Your task to perform on an android device: Show me recent news Image 0: 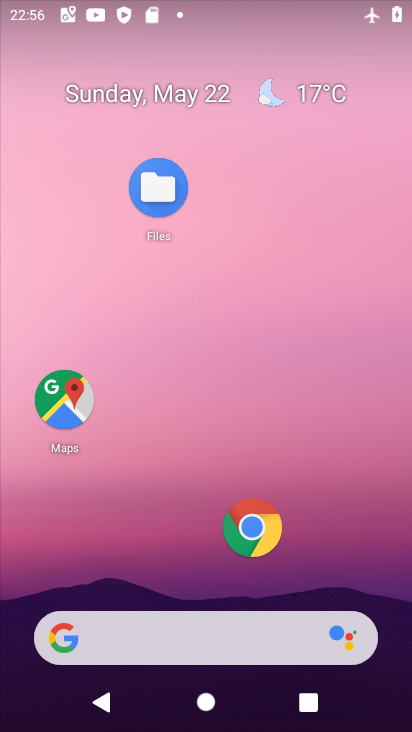
Step 0: drag from (27, 261) to (364, 246)
Your task to perform on an android device: Show me recent news Image 1: 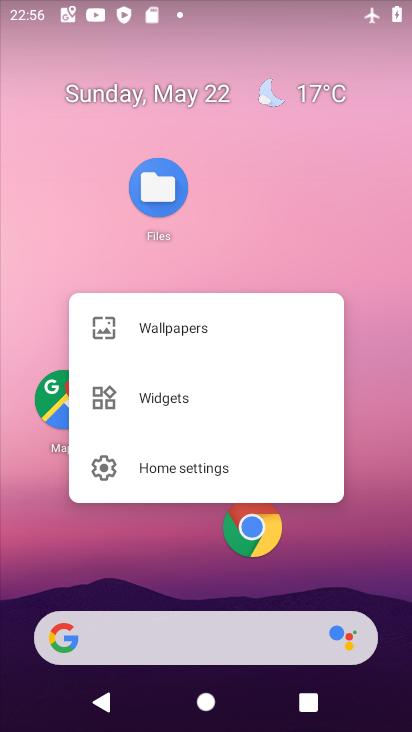
Step 1: click (364, 246)
Your task to perform on an android device: Show me recent news Image 2: 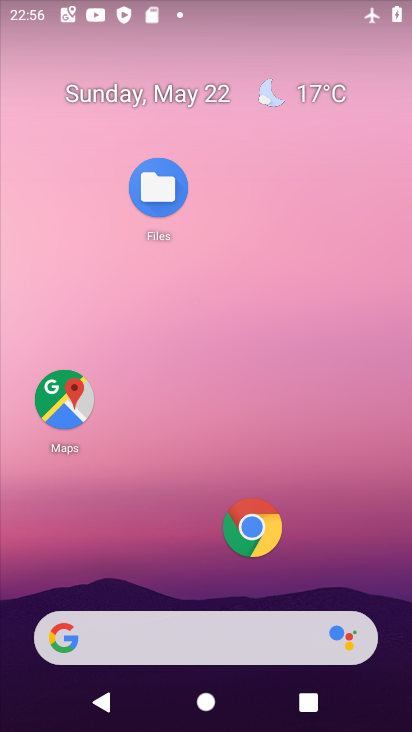
Step 2: drag from (24, 296) to (345, 292)
Your task to perform on an android device: Show me recent news Image 3: 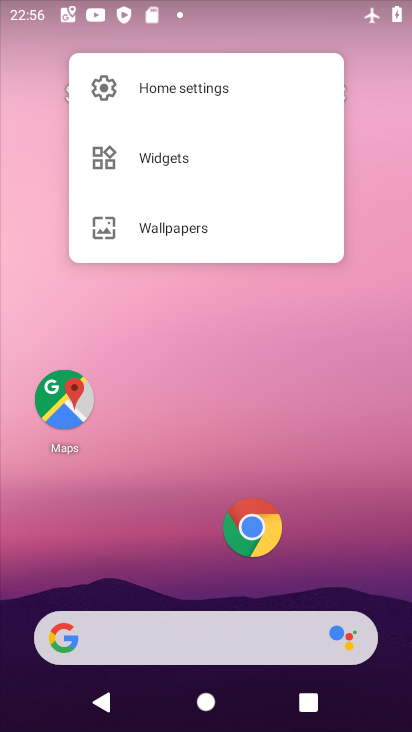
Step 3: click (345, 292)
Your task to perform on an android device: Show me recent news Image 4: 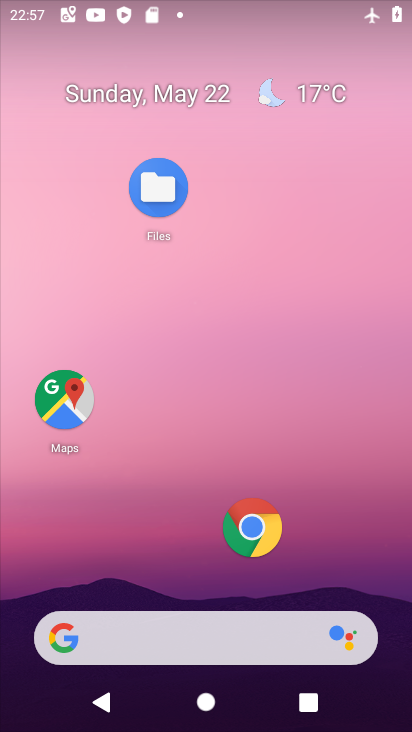
Step 4: click (345, 292)
Your task to perform on an android device: Show me recent news Image 5: 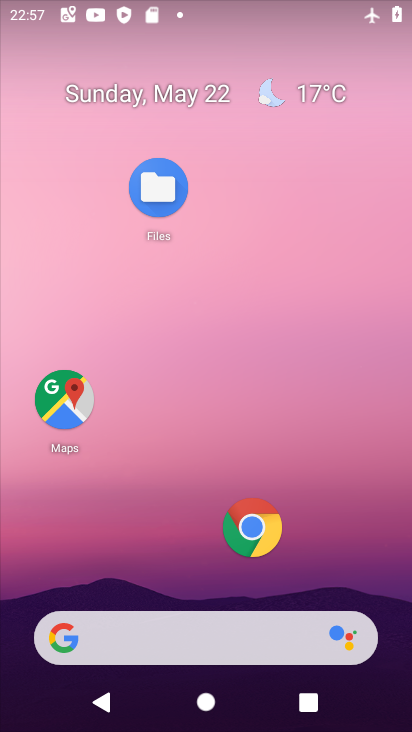
Step 5: click (213, 627)
Your task to perform on an android device: Show me recent news Image 6: 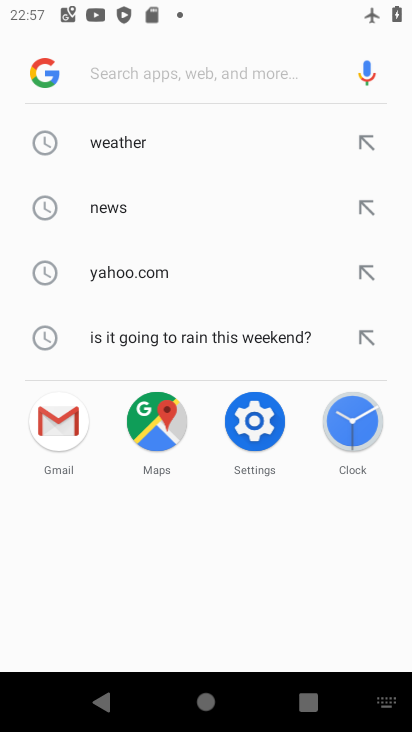
Step 6: click (117, 195)
Your task to perform on an android device: Show me recent news Image 7: 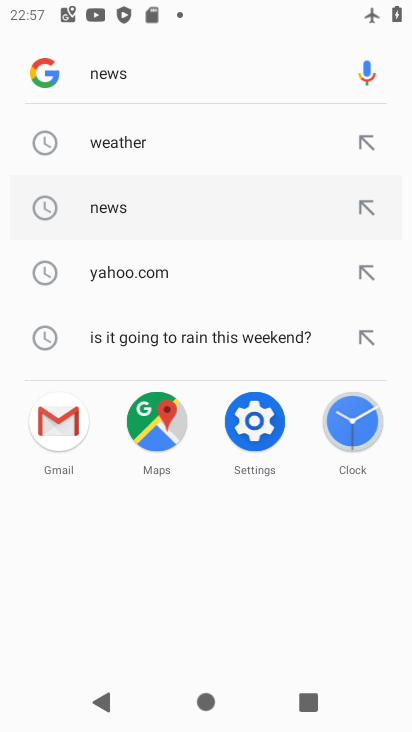
Step 7: click (117, 195)
Your task to perform on an android device: Show me recent news Image 8: 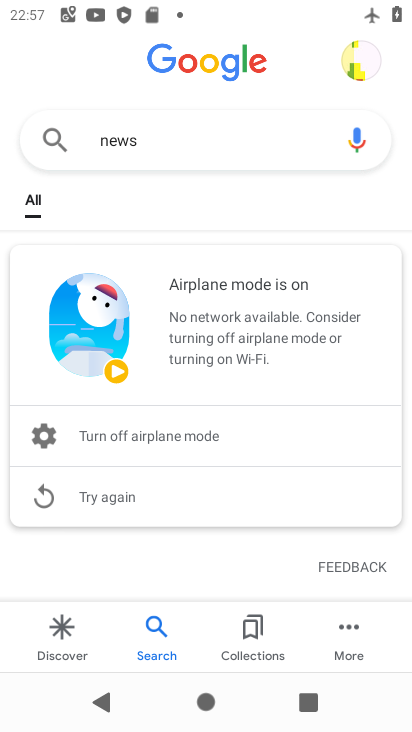
Step 8: task complete